Your task to perform on an android device: What's a good restaurant in Dallas? Image 0: 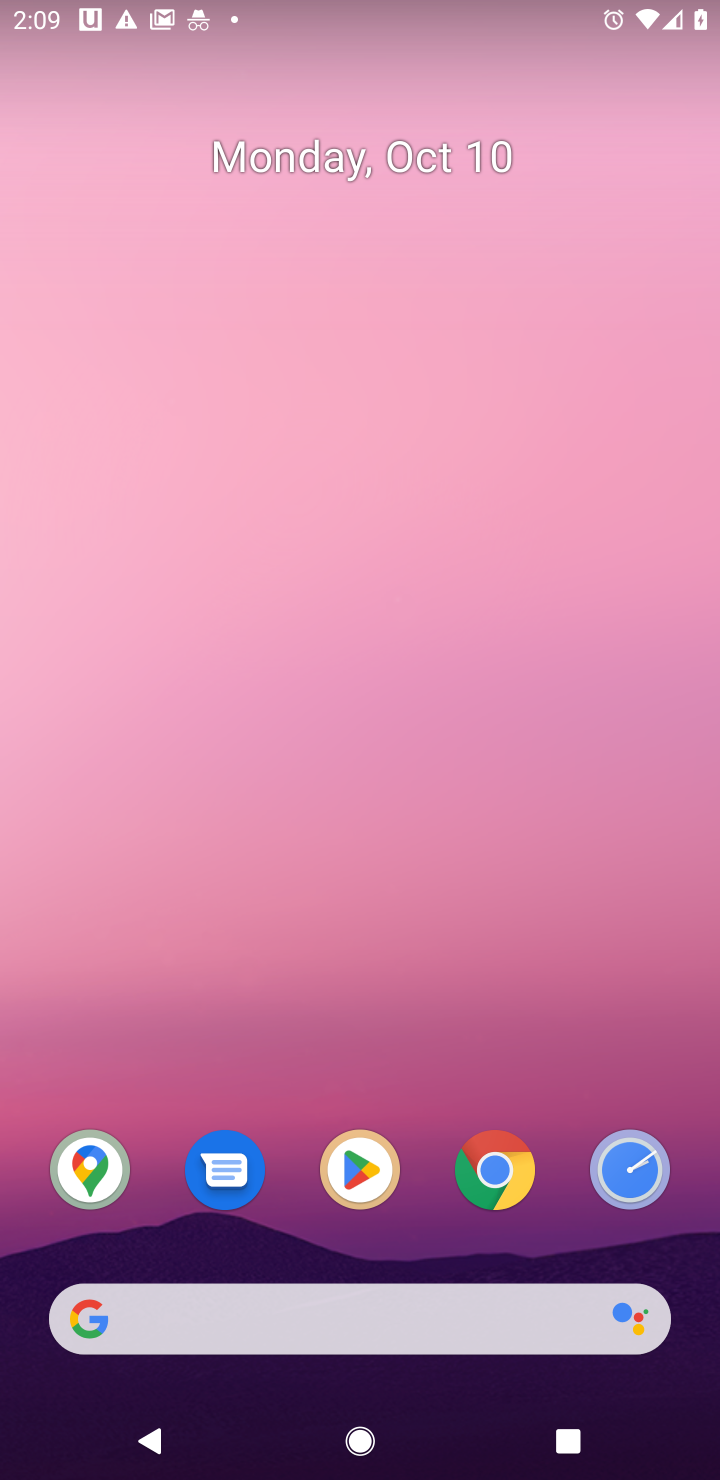
Step 0: click (490, 1172)
Your task to perform on an android device: What's a good restaurant in Dallas? Image 1: 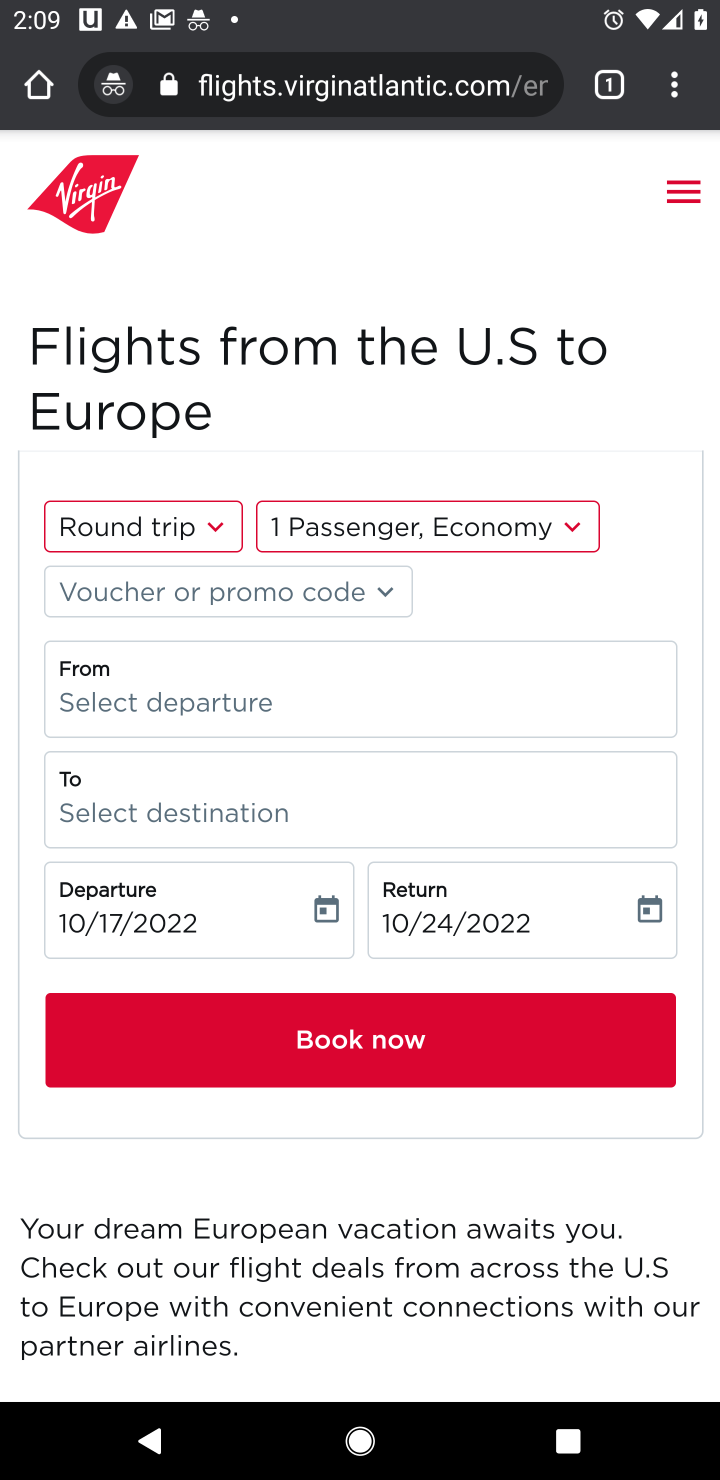
Step 1: click (395, 76)
Your task to perform on an android device: What's a good restaurant in Dallas? Image 2: 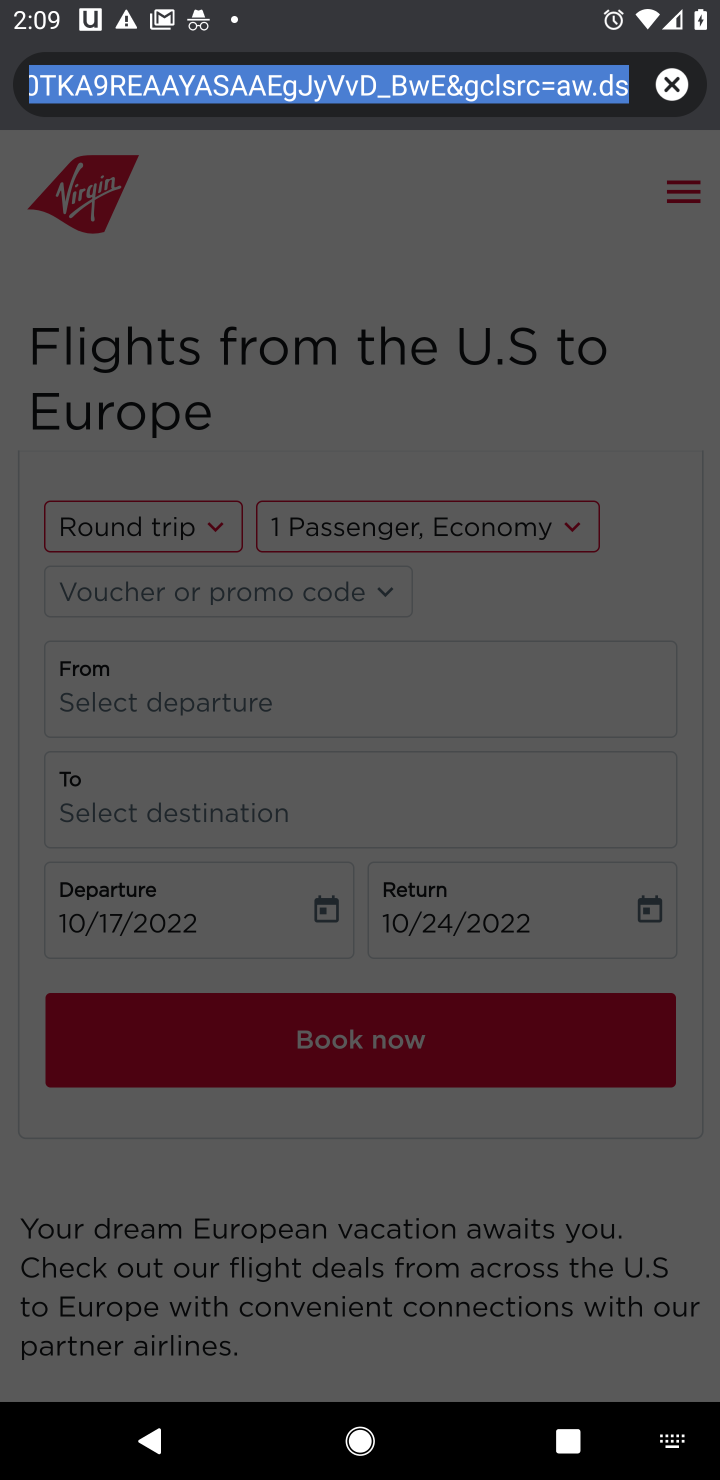
Step 2: click (679, 78)
Your task to perform on an android device: What's a good restaurant in Dallas? Image 3: 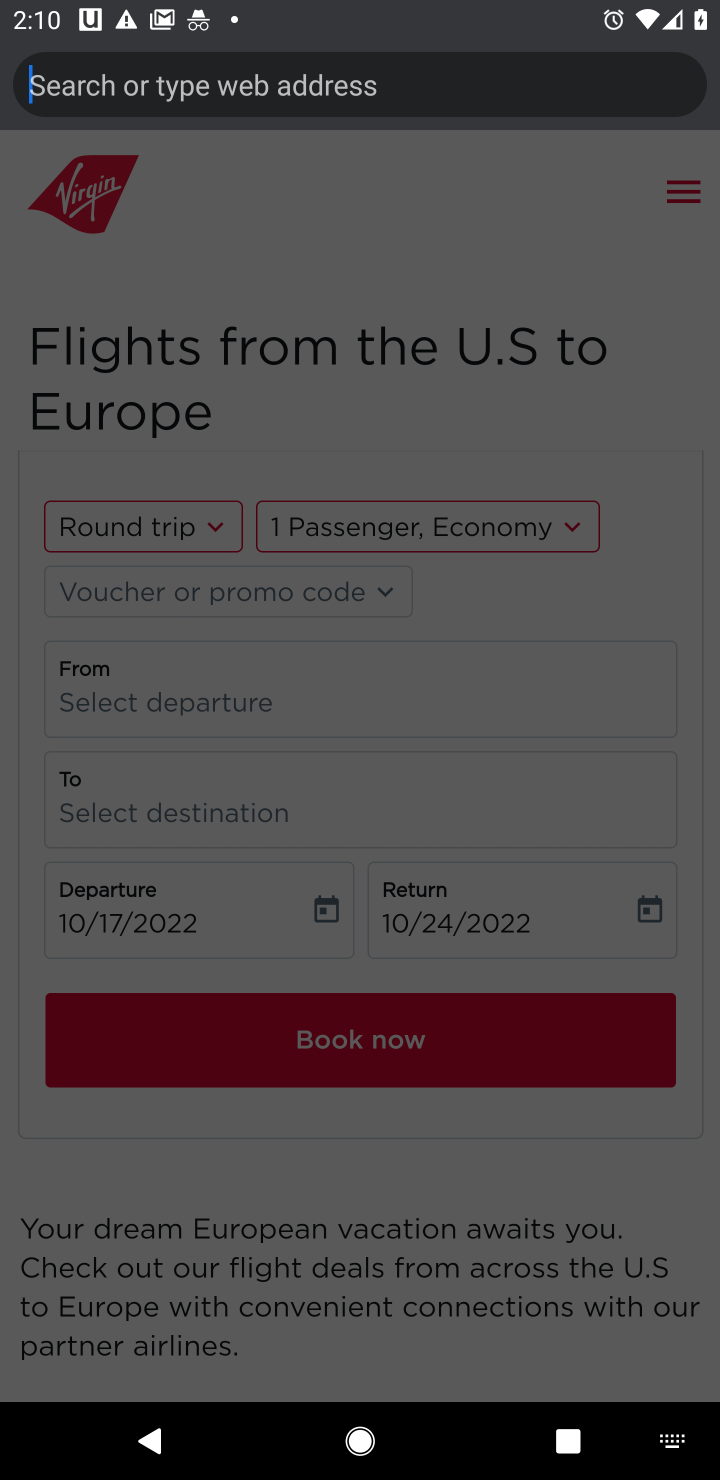
Step 3: type "good restaurants in dallas"
Your task to perform on an android device: What's a good restaurant in Dallas? Image 4: 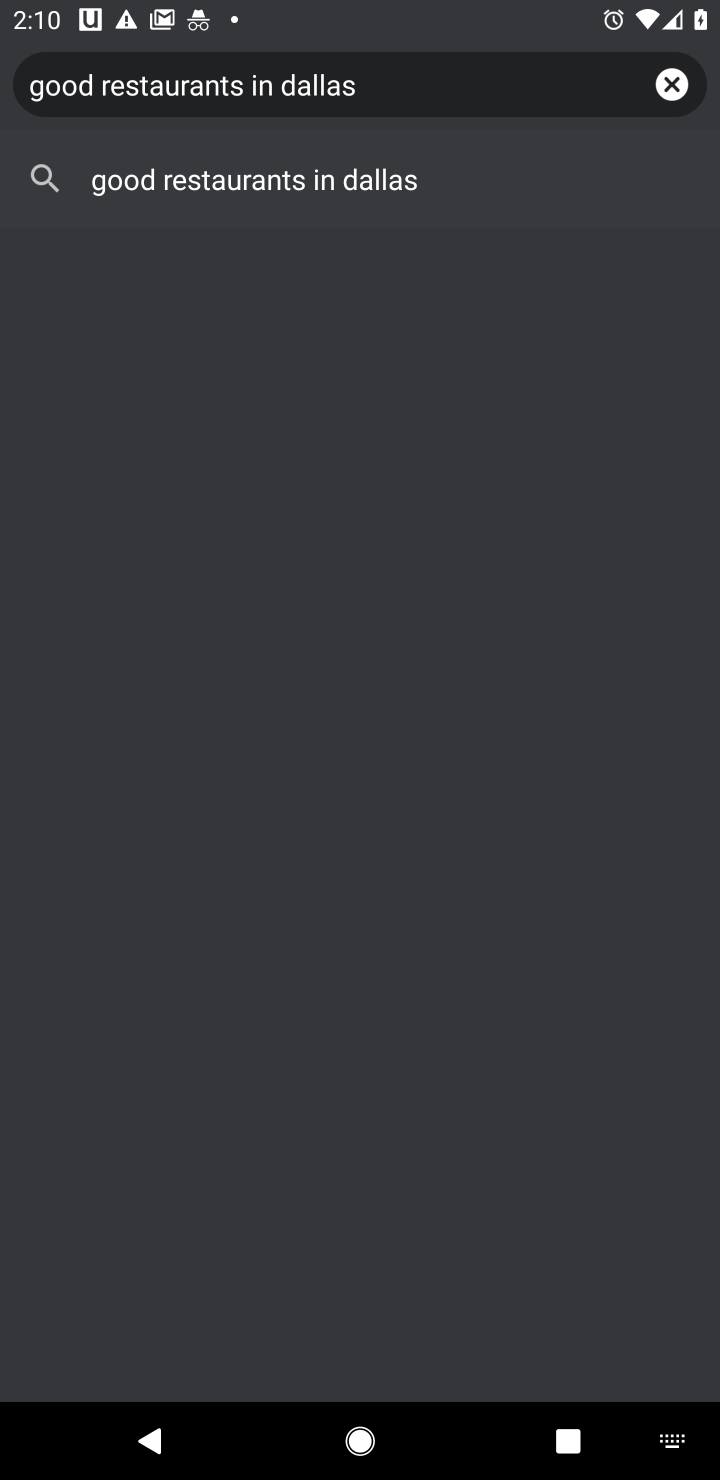
Step 4: type ""
Your task to perform on an android device: What's a good restaurant in Dallas? Image 5: 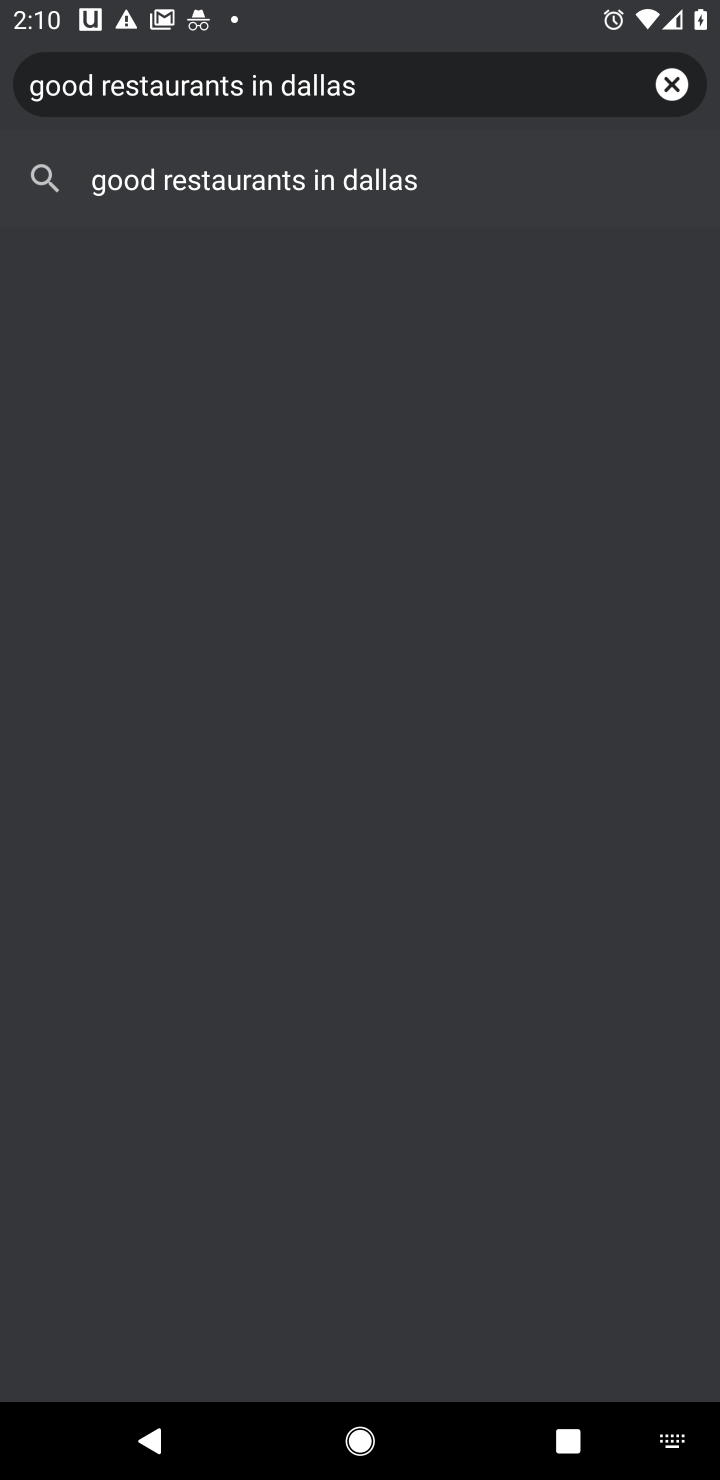
Step 5: click (233, 174)
Your task to perform on an android device: What's a good restaurant in Dallas? Image 6: 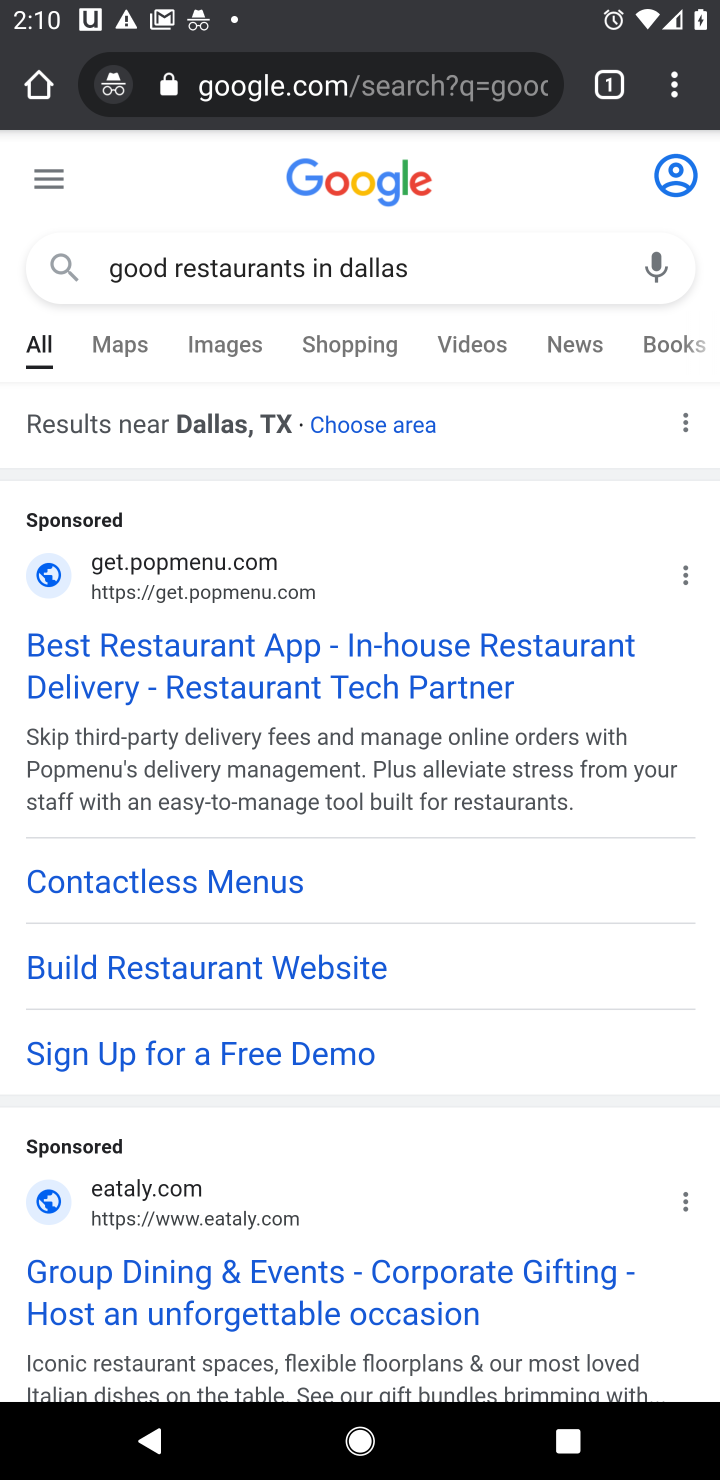
Step 6: click (168, 665)
Your task to perform on an android device: What's a good restaurant in Dallas? Image 7: 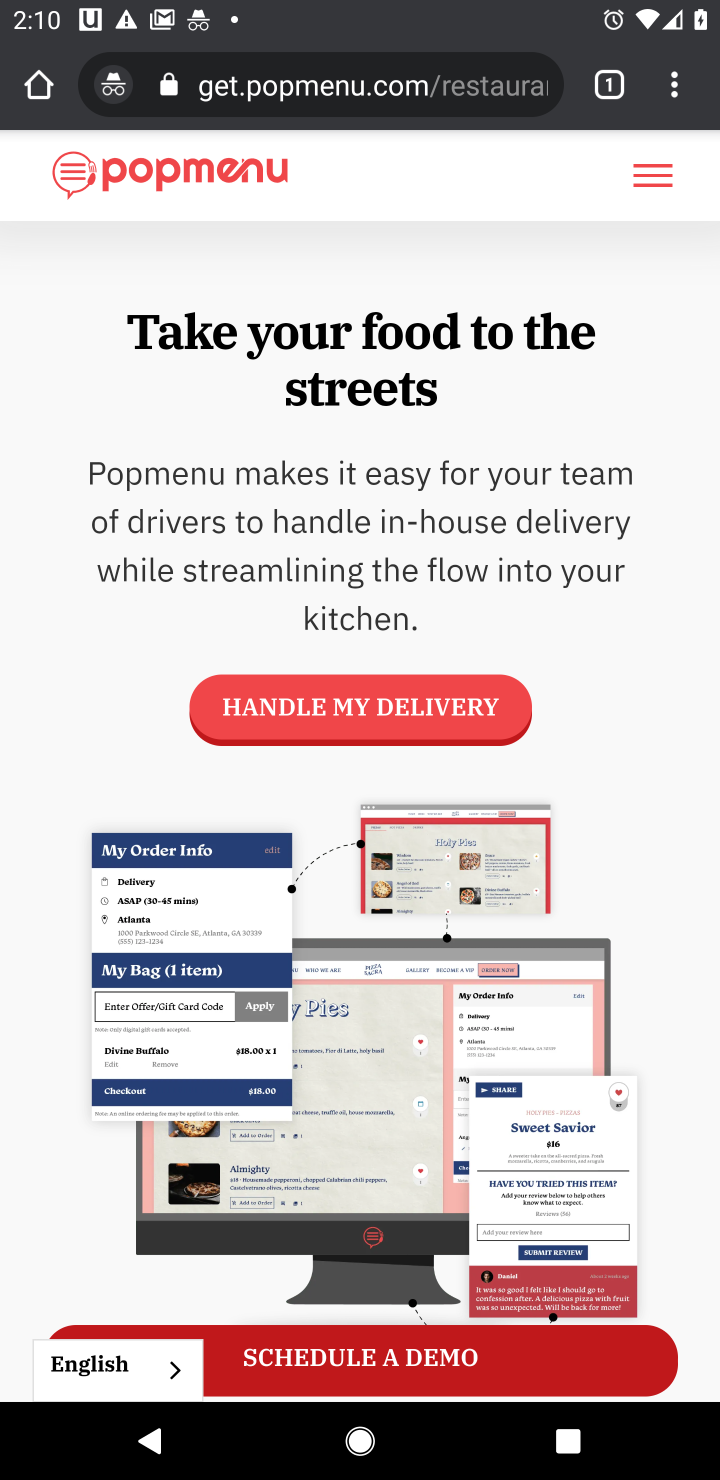
Step 7: task complete